Your task to perform on an android device: add a label to a message in the gmail app Image 0: 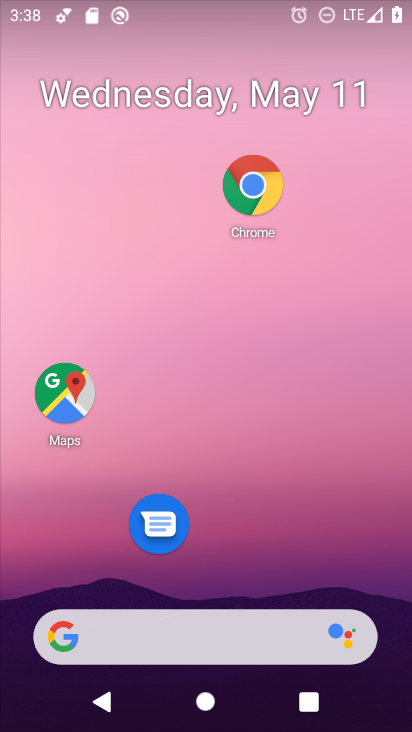
Step 0: drag from (289, 517) to (243, 55)
Your task to perform on an android device: add a label to a message in the gmail app Image 1: 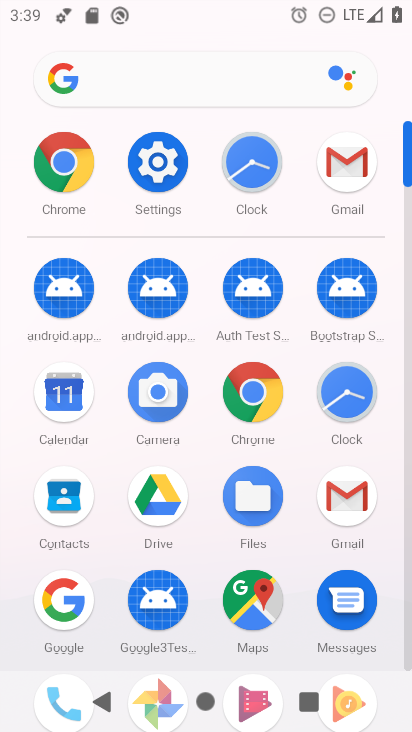
Step 1: click (356, 173)
Your task to perform on an android device: add a label to a message in the gmail app Image 2: 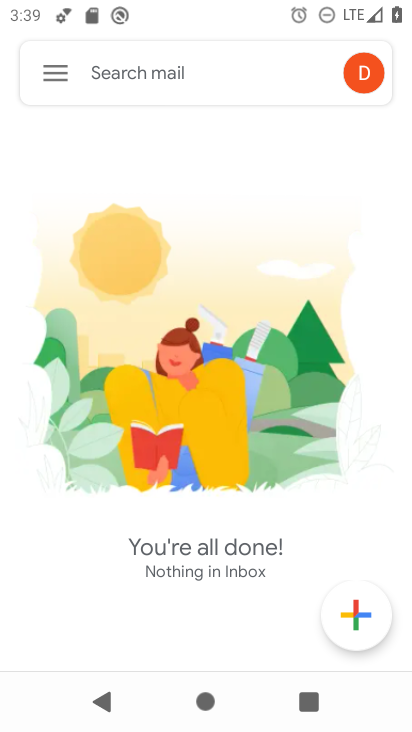
Step 2: click (53, 68)
Your task to perform on an android device: add a label to a message in the gmail app Image 3: 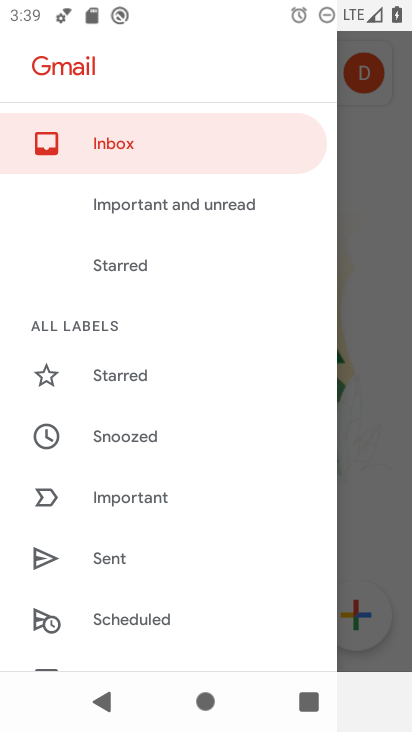
Step 3: drag from (189, 531) to (185, 118)
Your task to perform on an android device: add a label to a message in the gmail app Image 4: 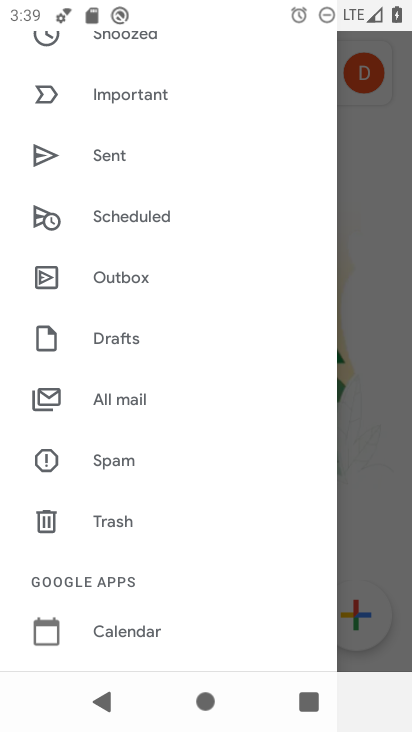
Step 4: click (147, 385)
Your task to perform on an android device: add a label to a message in the gmail app Image 5: 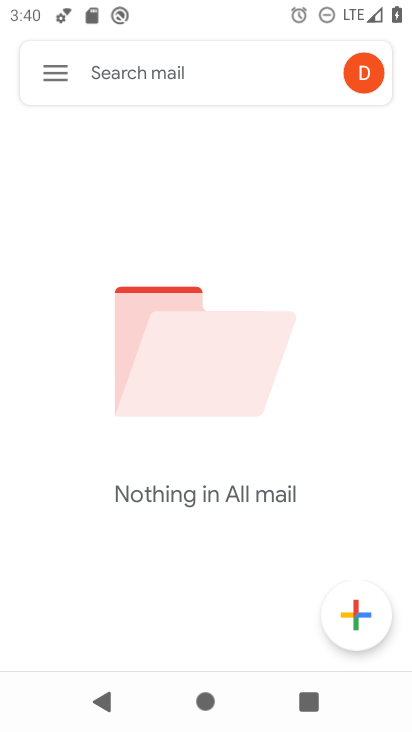
Step 5: task complete